Your task to perform on an android device: Open notification settings Image 0: 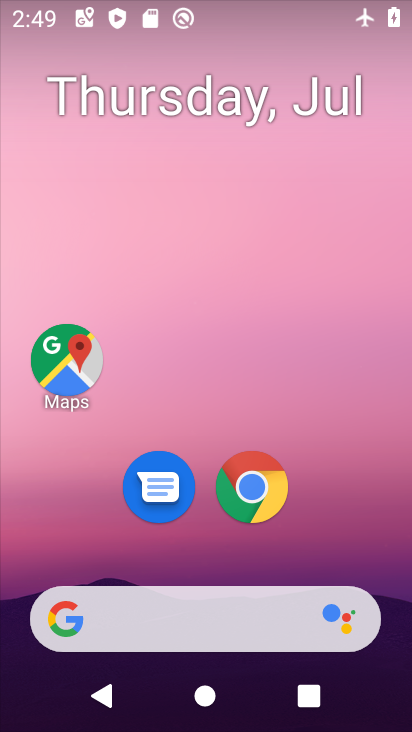
Step 0: drag from (365, 436) to (376, 154)
Your task to perform on an android device: Open notification settings Image 1: 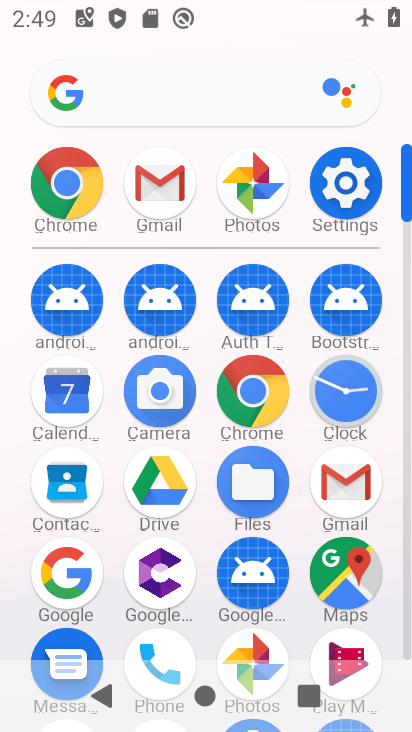
Step 1: click (348, 196)
Your task to perform on an android device: Open notification settings Image 2: 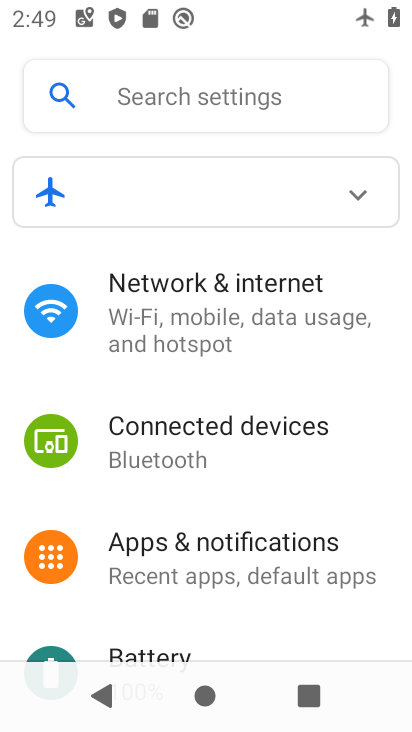
Step 2: drag from (379, 418) to (378, 343)
Your task to perform on an android device: Open notification settings Image 3: 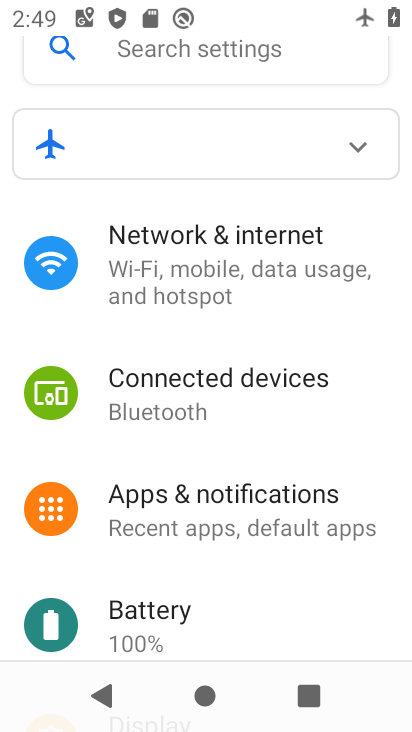
Step 3: drag from (371, 439) to (370, 344)
Your task to perform on an android device: Open notification settings Image 4: 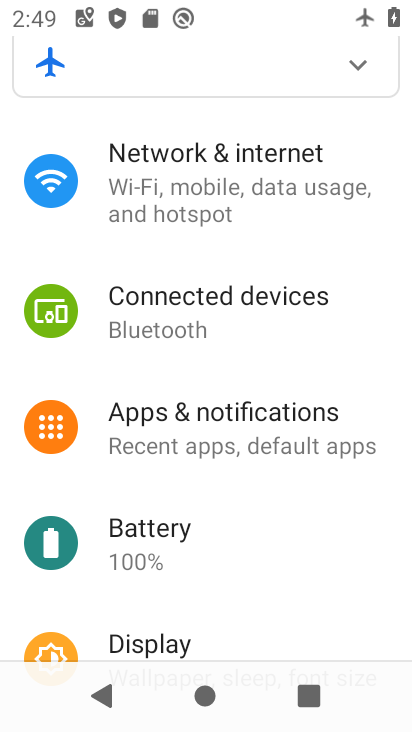
Step 4: drag from (383, 443) to (382, 361)
Your task to perform on an android device: Open notification settings Image 5: 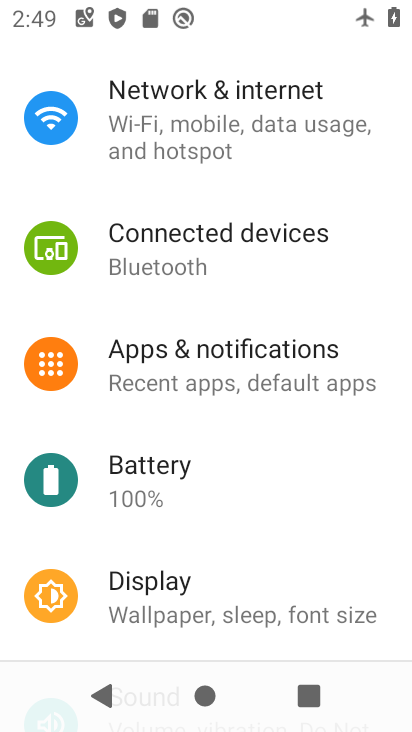
Step 5: drag from (376, 451) to (372, 352)
Your task to perform on an android device: Open notification settings Image 6: 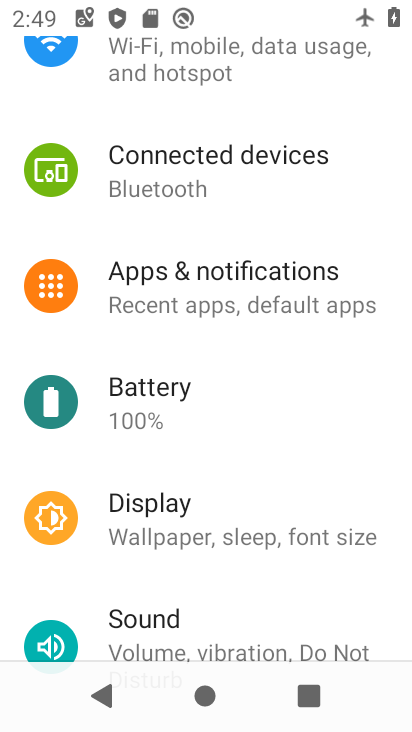
Step 6: click (303, 290)
Your task to perform on an android device: Open notification settings Image 7: 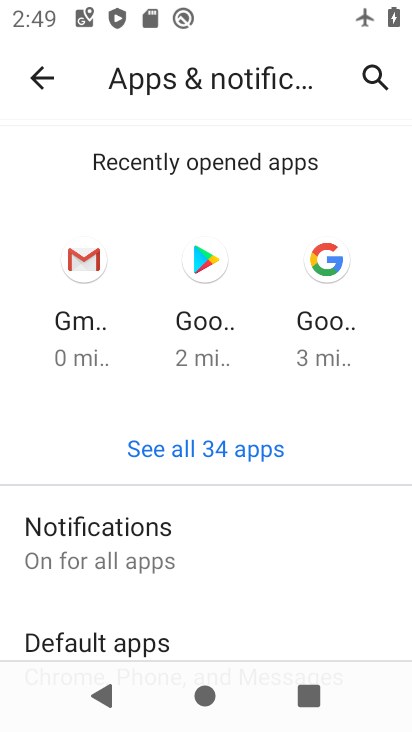
Step 7: drag from (316, 476) to (324, 385)
Your task to perform on an android device: Open notification settings Image 8: 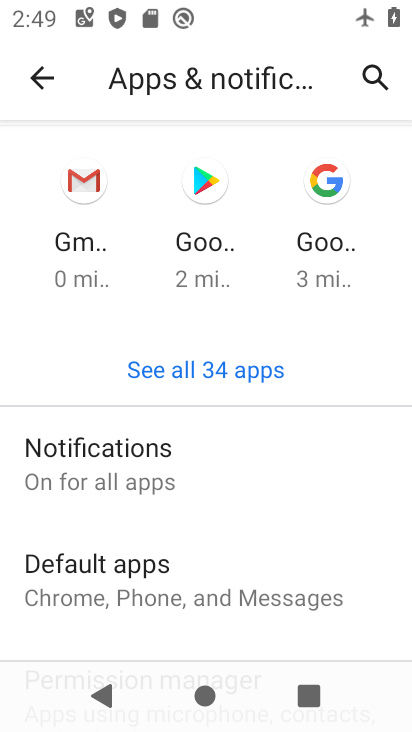
Step 8: drag from (323, 497) to (324, 382)
Your task to perform on an android device: Open notification settings Image 9: 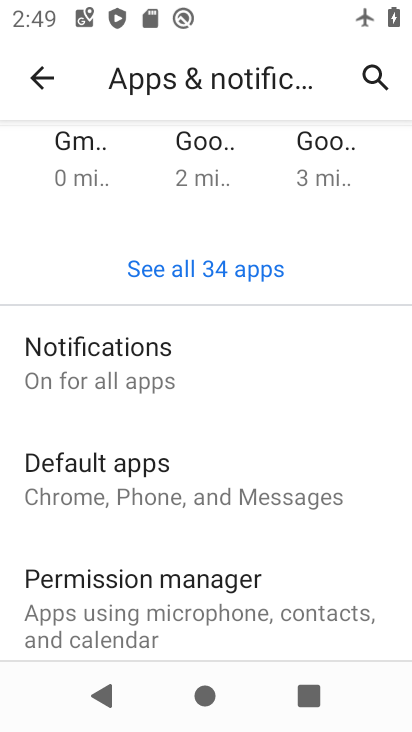
Step 9: drag from (345, 531) to (364, 386)
Your task to perform on an android device: Open notification settings Image 10: 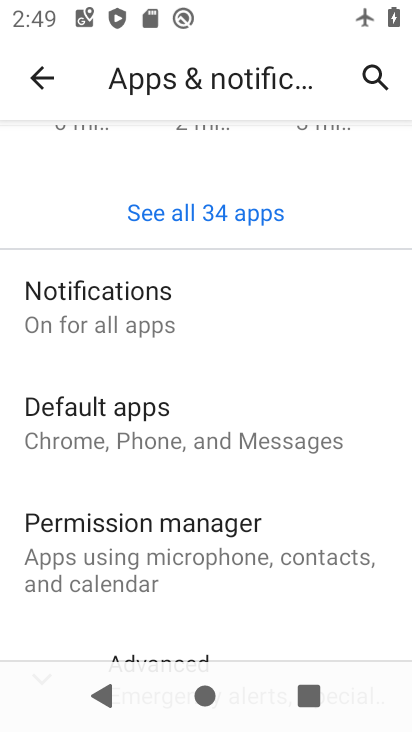
Step 10: click (155, 314)
Your task to perform on an android device: Open notification settings Image 11: 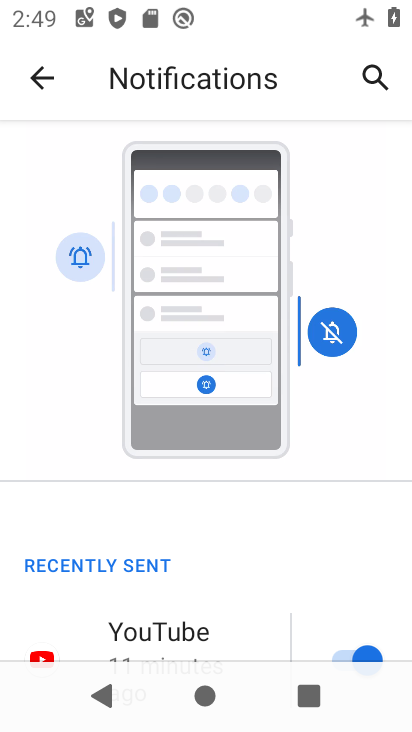
Step 11: task complete